Your task to perform on an android device: Turn on the flashlight Image 0: 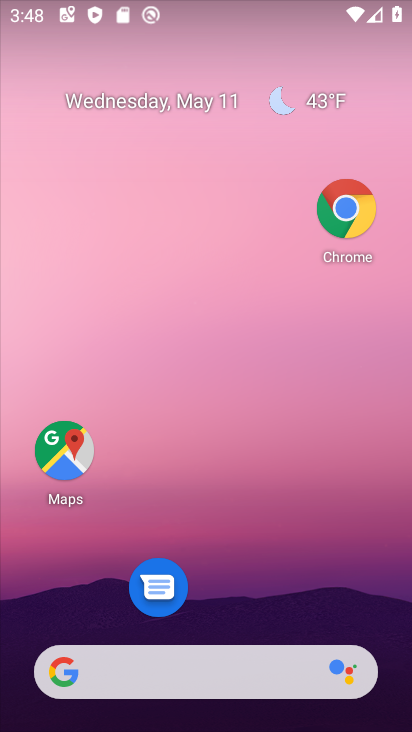
Step 0: task impossible